Your task to perform on an android device: Go to wifi settings Image 0: 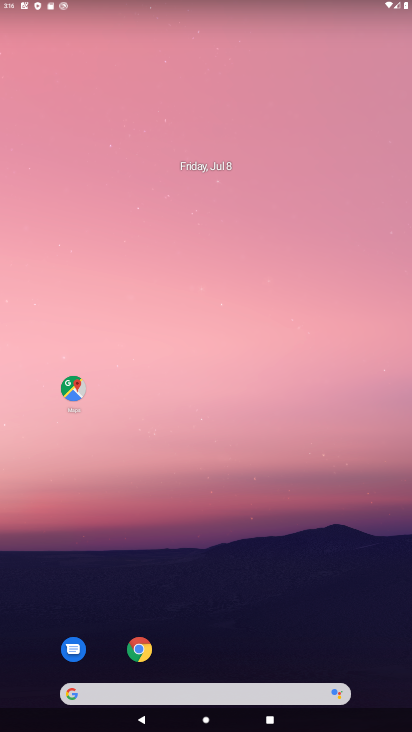
Step 0: drag from (205, 640) to (150, 92)
Your task to perform on an android device: Go to wifi settings Image 1: 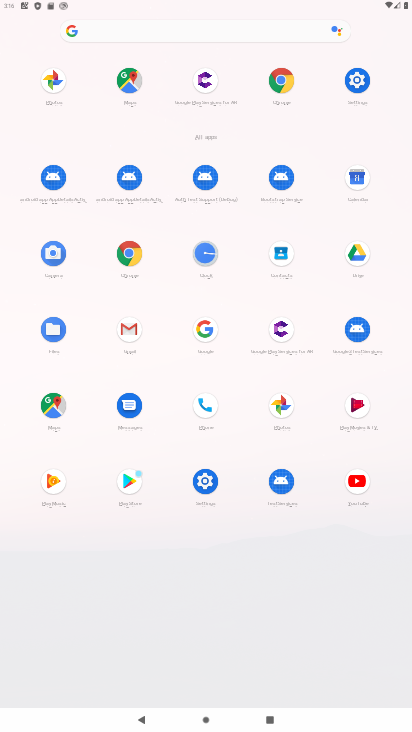
Step 1: click (356, 96)
Your task to perform on an android device: Go to wifi settings Image 2: 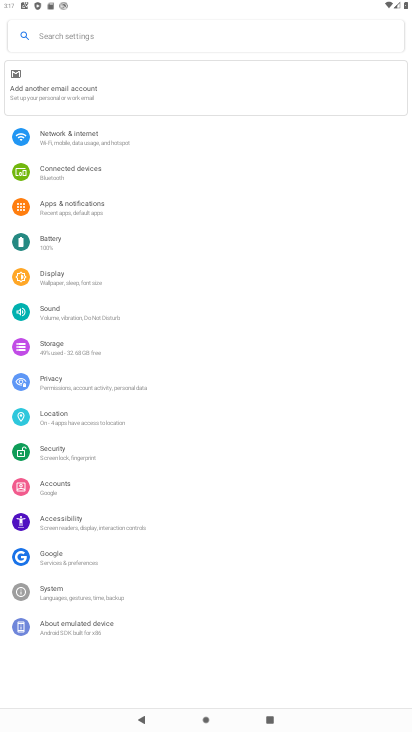
Step 2: click (101, 143)
Your task to perform on an android device: Go to wifi settings Image 3: 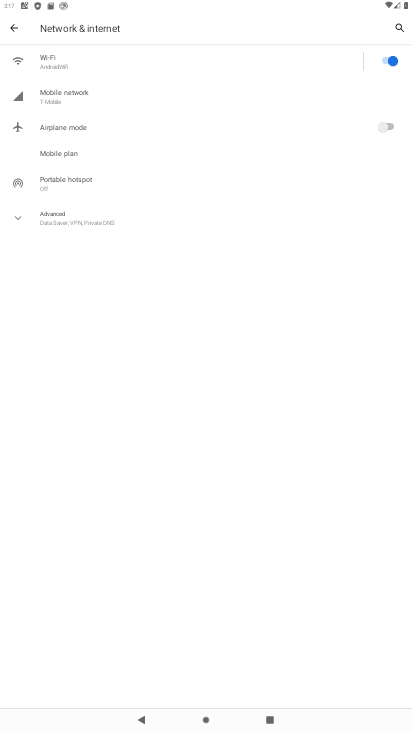
Step 3: click (52, 62)
Your task to perform on an android device: Go to wifi settings Image 4: 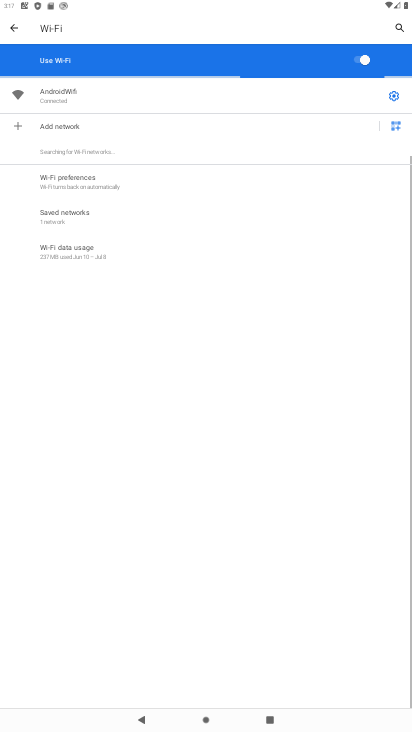
Step 4: task complete